Your task to perform on an android device: Search for Mexican restaurants on Maps Image 0: 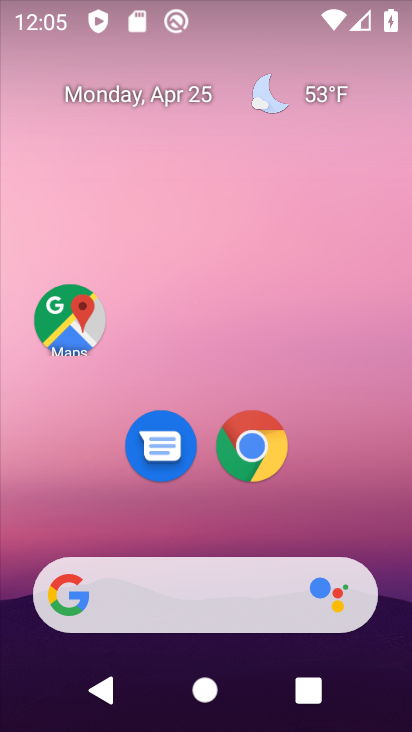
Step 0: click (74, 316)
Your task to perform on an android device: Search for Mexican restaurants on Maps Image 1: 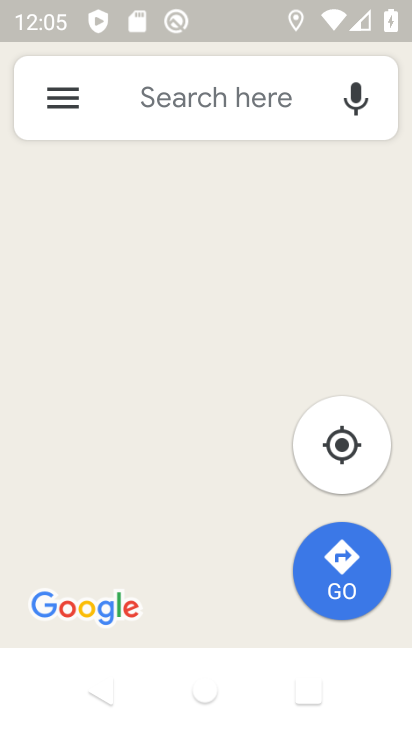
Step 1: click (210, 95)
Your task to perform on an android device: Search for Mexican restaurants on Maps Image 2: 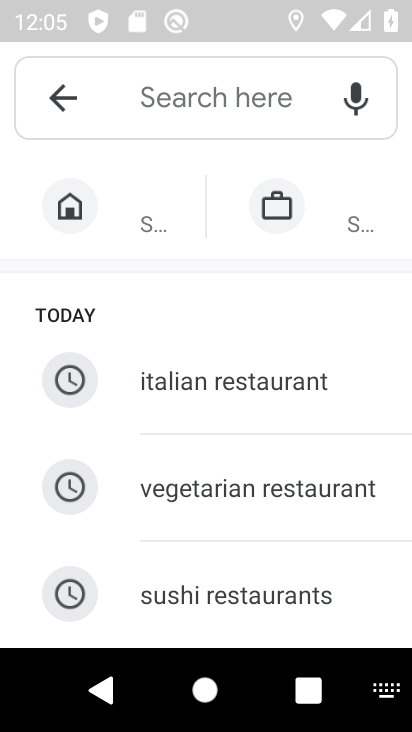
Step 2: type "mexican restaurants"
Your task to perform on an android device: Search for Mexican restaurants on Maps Image 3: 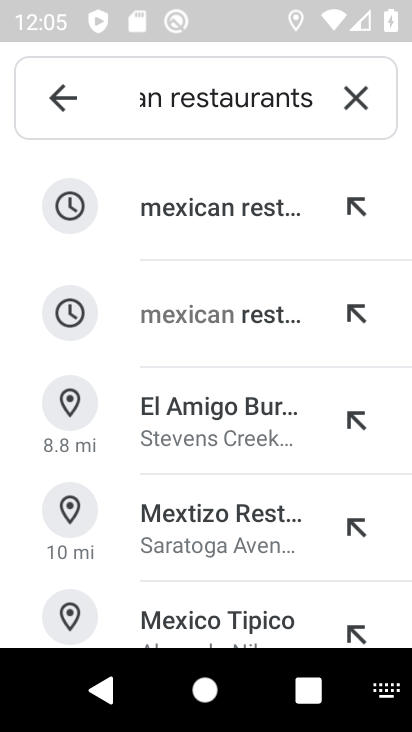
Step 3: click (207, 212)
Your task to perform on an android device: Search for Mexican restaurants on Maps Image 4: 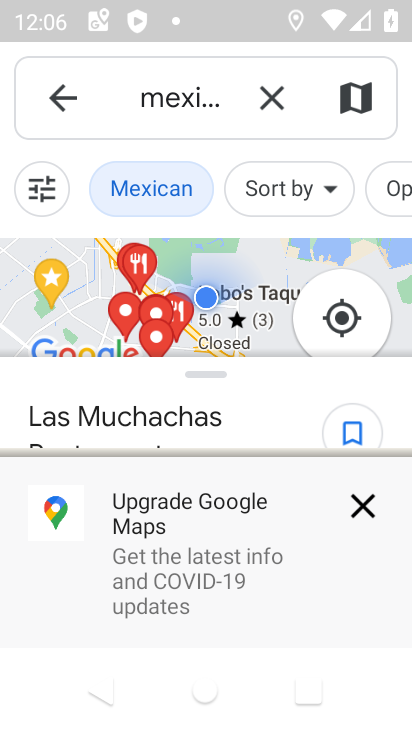
Step 4: task complete